Your task to perform on an android device: Search for seafood restaurants on Google Maps Image 0: 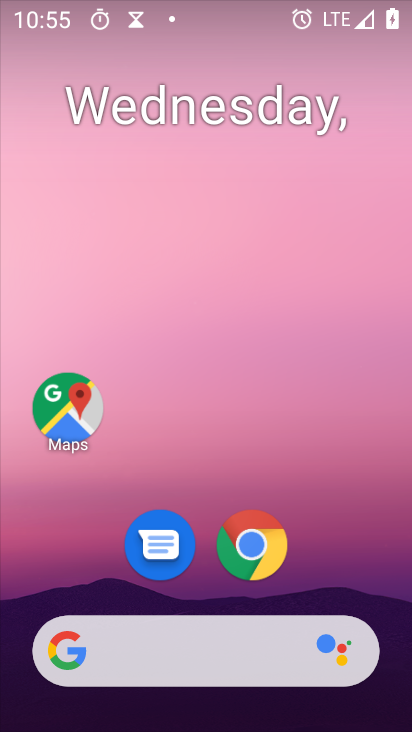
Step 0: press home button
Your task to perform on an android device: Search for seafood restaurants on Google Maps Image 1: 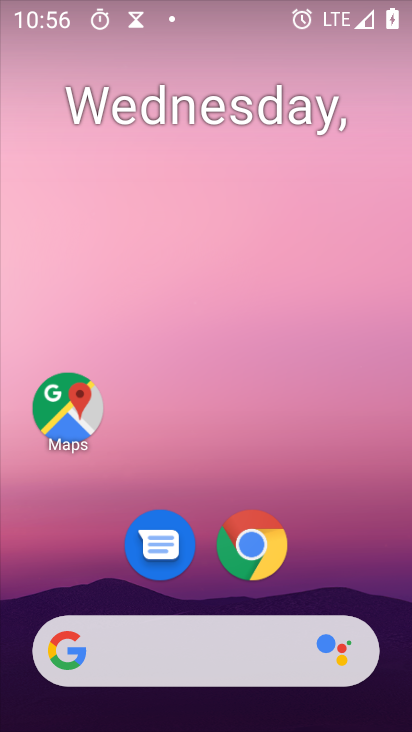
Step 1: click (69, 408)
Your task to perform on an android device: Search for seafood restaurants on Google Maps Image 2: 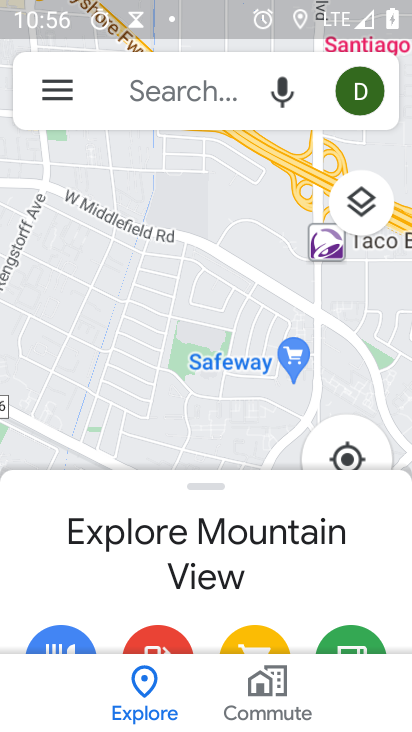
Step 2: click (145, 100)
Your task to perform on an android device: Search for seafood restaurants on Google Maps Image 3: 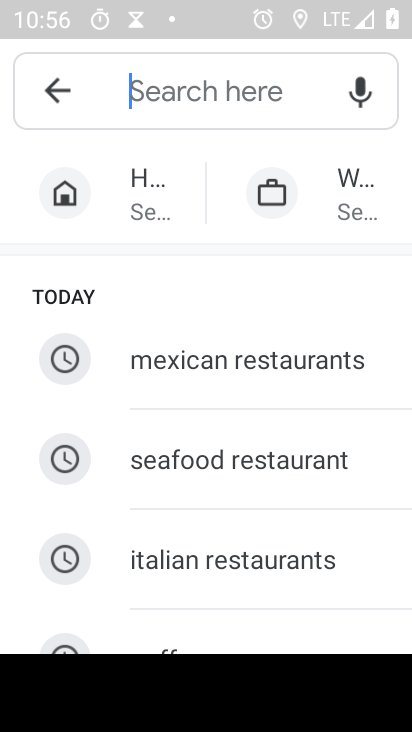
Step 3: click (189, 468)
Your task to perform on an android device: Search for seafood restaurants on Google Maps Image 4: 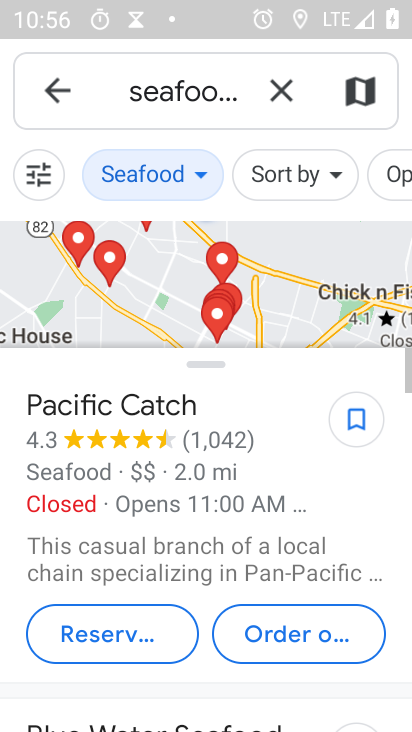
Step 4: task complete